Your task to perform on an android device: View the shopping cart on target. Image 0: 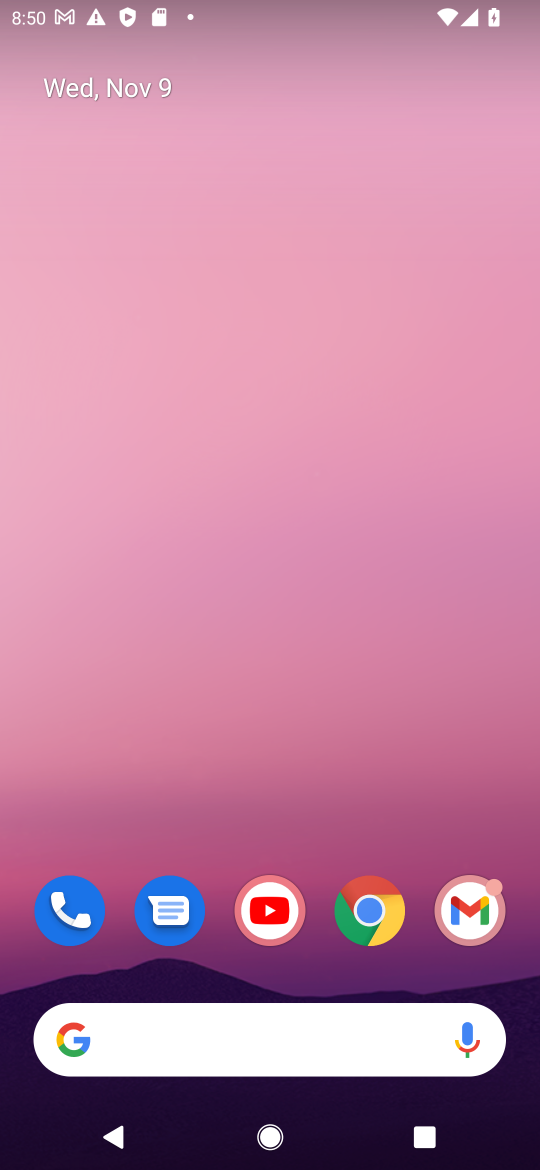
Step 0: click (381, 915)
Your task to perform on an android device: View the shopping cart on target. Image 1: 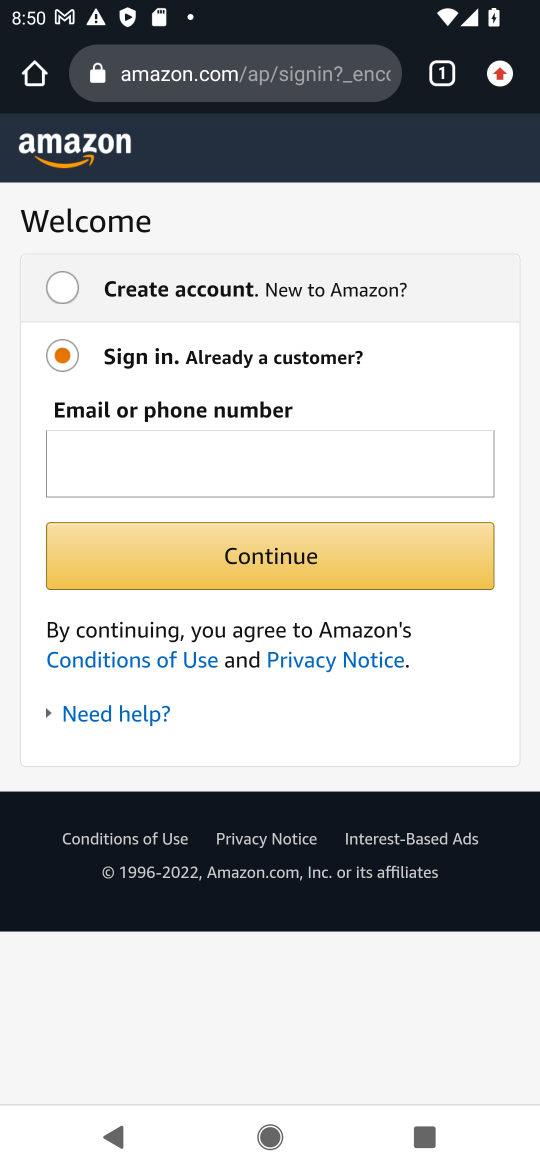
Step 1: click (243, 85)
Your task to perform on an android device: View the shopping cart on target. Image 2: 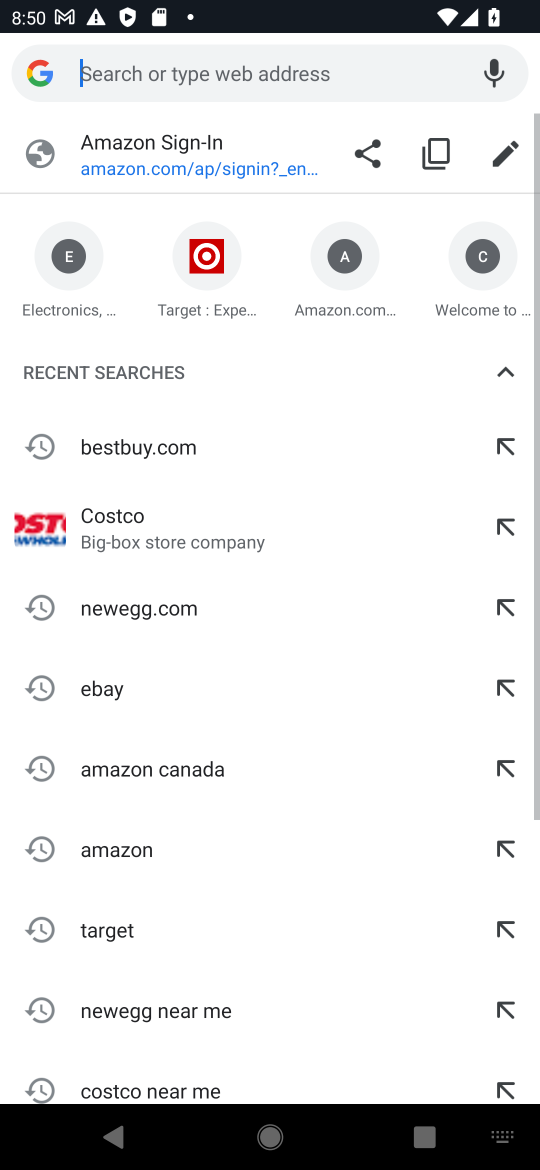
Step 2: click (210, 256)
Your task to perform on an android device: View the shopping cart on target. Image 3: 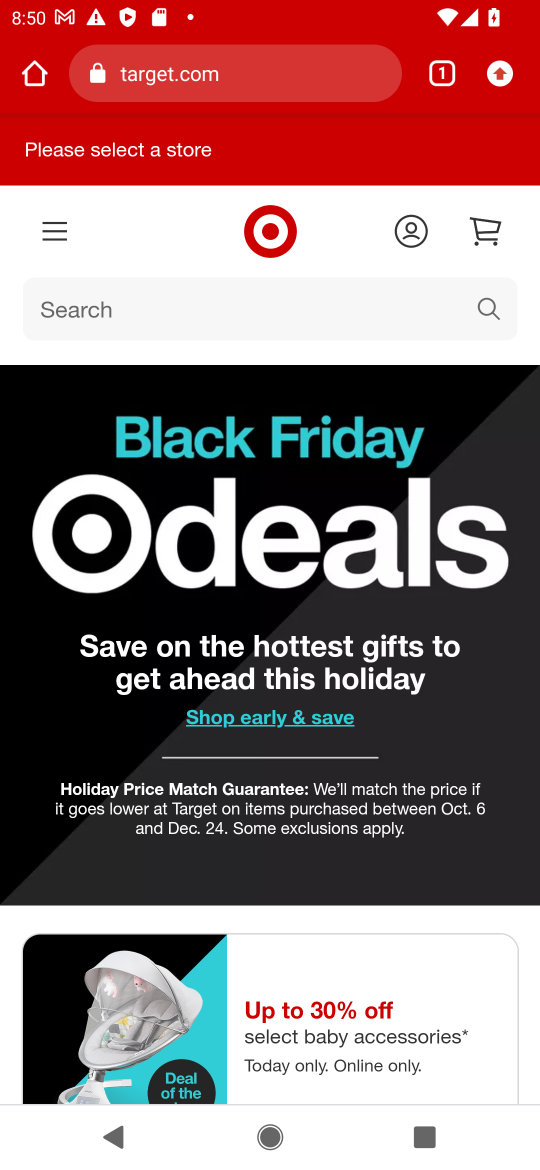
Step 3: click (484, 233)
Your task to perform on an android device: View the shopping cart on target. Image 4: 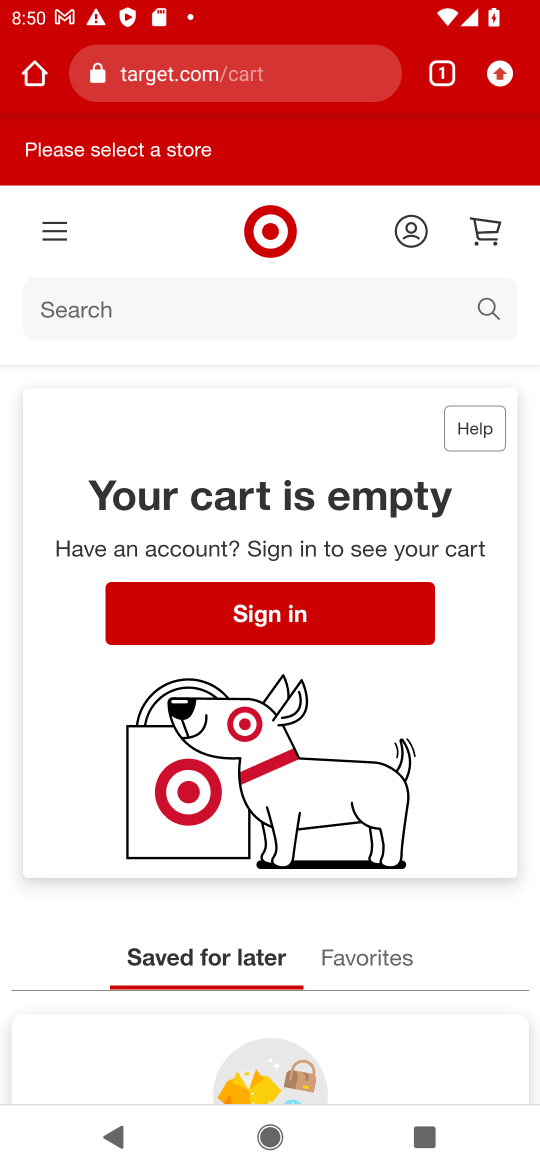
Step 4: task complete